Your task to perform on an android device: Is it going to rain today? Image 0: 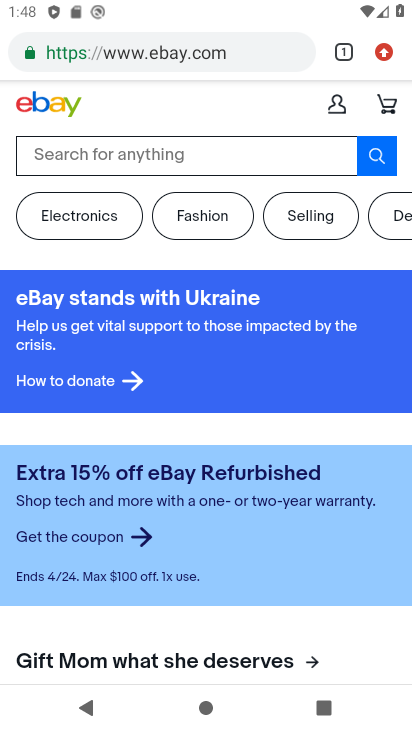
Step 0: press home button
Your task to perform on an android device: Is it going to rain today? Image 1: 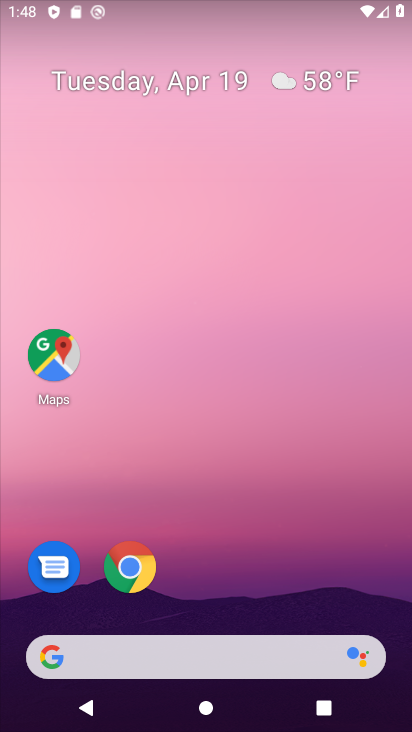
Step 1: click (311, 82)
Your task to perform on an android device: Is it going to rain today? Image 2: 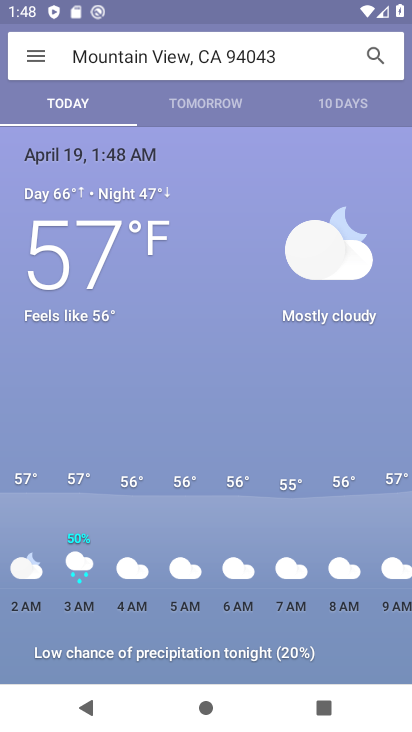
Step 2: task complete